Your task to perform on an android device: Search for alienware aurora on amazon, select the first entry, and add it to the cart. Image 0: 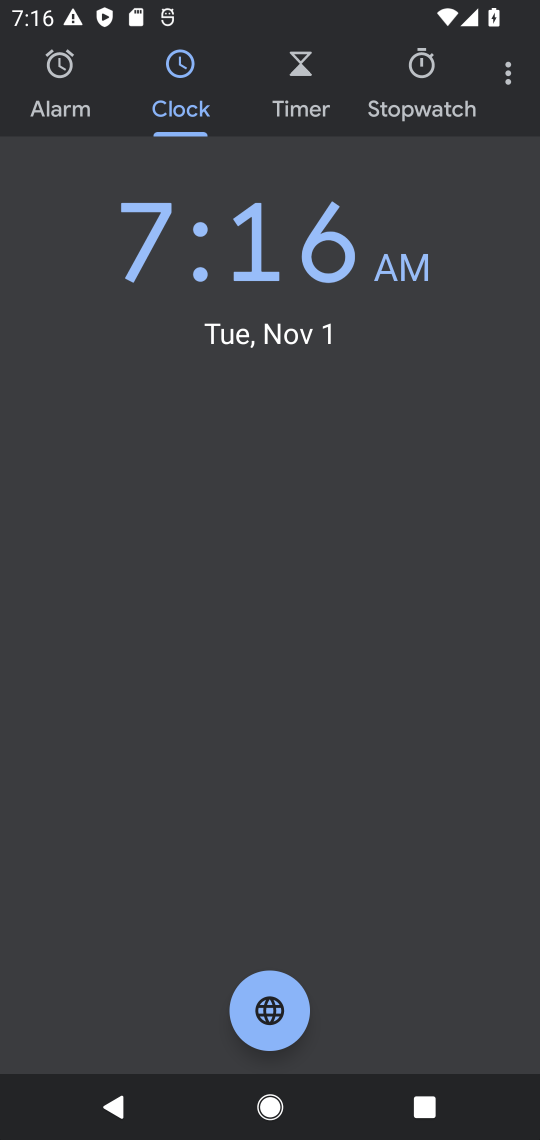
Step 0: press home button
Your task to perform on an android device: Search for alienware aurora on amazon, select the first entry, and add it to the cart. Image 1: 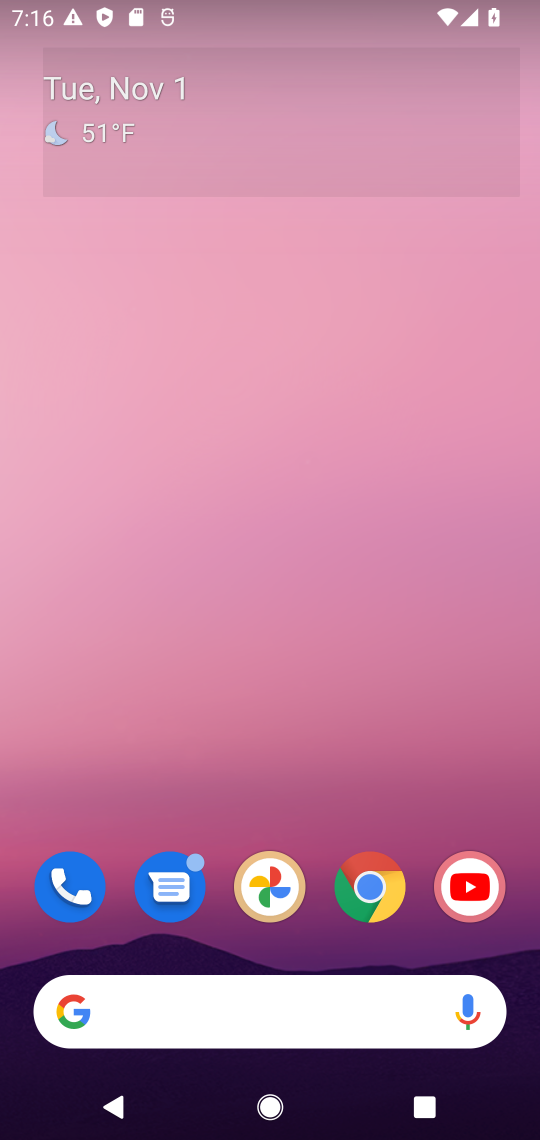
Step 1: click (258, 893)
Your task to perform on an android device: Search for alienware aurora on amazon, select the first entry, and add it to the cart. Image 2: 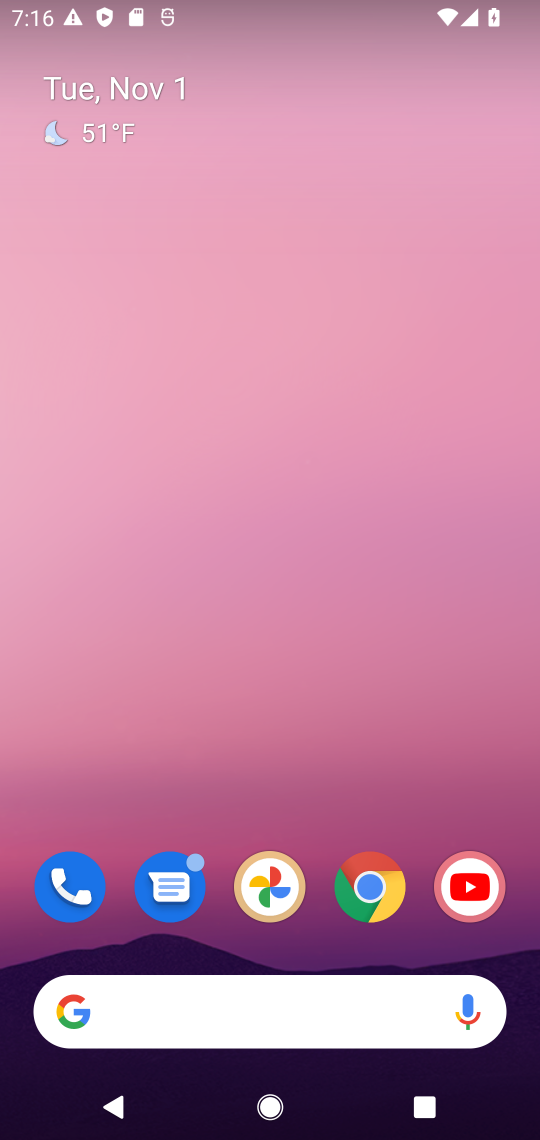
Step 2: drag from (226, 943) to (251, 551)
Your task to perform on an android device: Search for alienware aurora on amazon, select the first entry, and add it to the cart. Image 3: 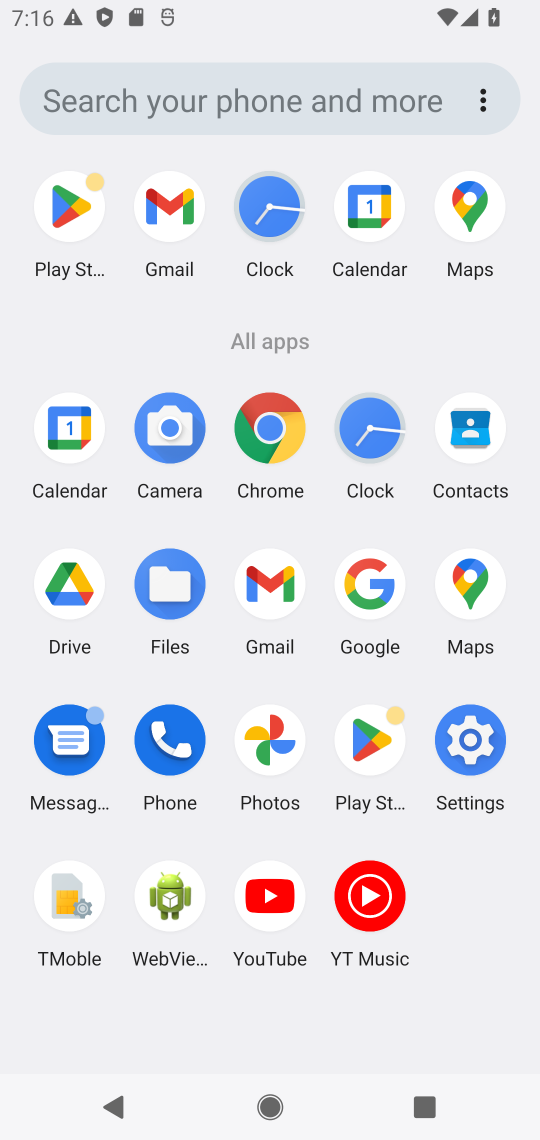
Step 3: click (359, 576)
Your task to perform on an android device: Search for alienware aurora on amazon, select the first entry, and add it to the cart. Image 4: 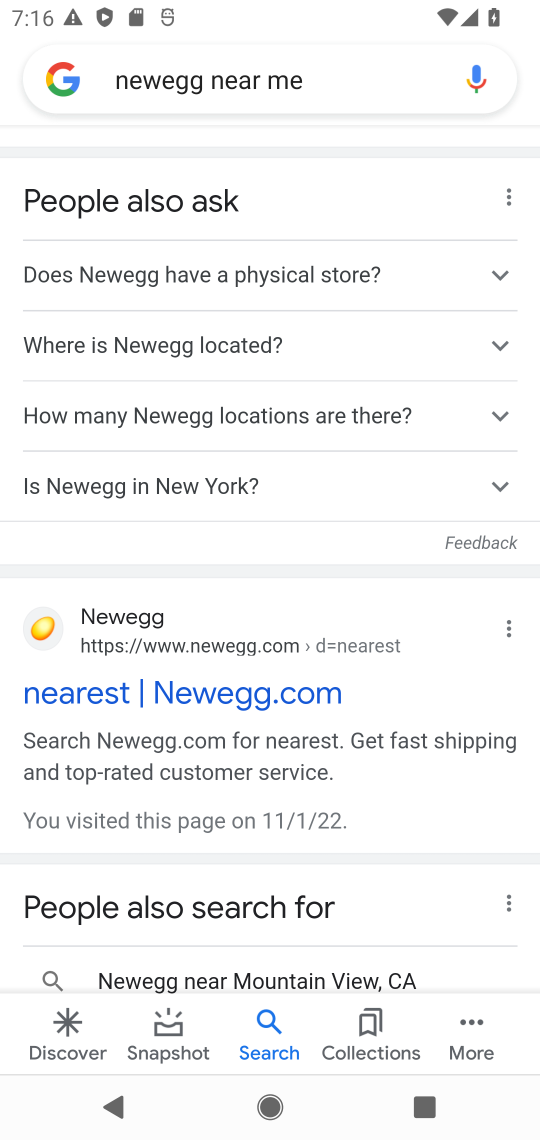
Step 4: click (317, 60)
Your task to perform on an android device: Search for alienware aurora on amazon, select the first entry, and add it to the cart. Image 5: 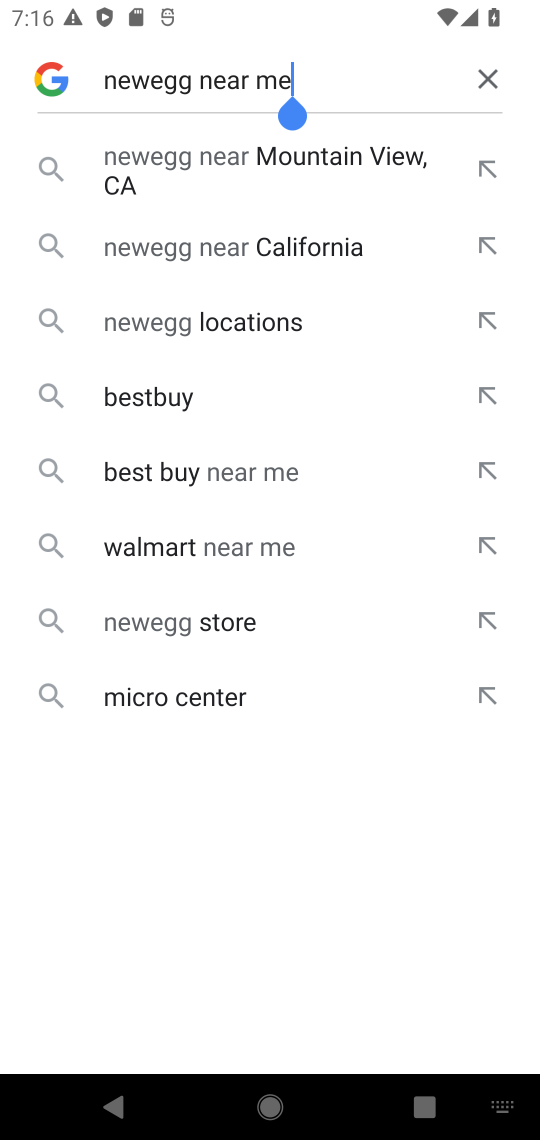
Step 5: click (496, 63)
Your task to perform on an android device: Search for alienware aurora on amazon, select the first entry, and add it to the cart. Image 6: 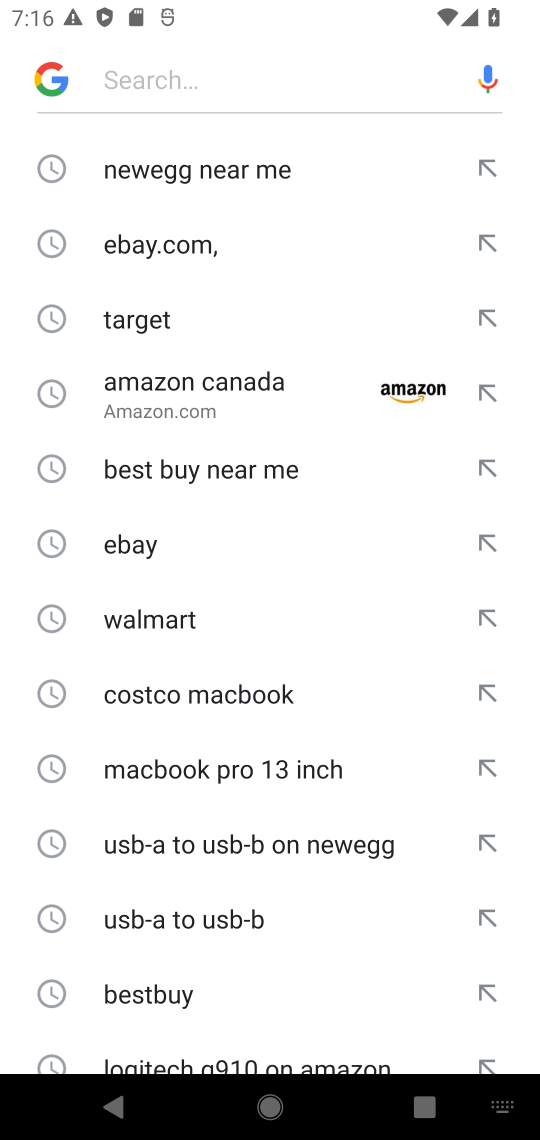
Step 6: click (278, 58)
Your task to perform on an android device: Search for alienware aurora on amazon, select the first entry, and add it to the cart. Image 7: 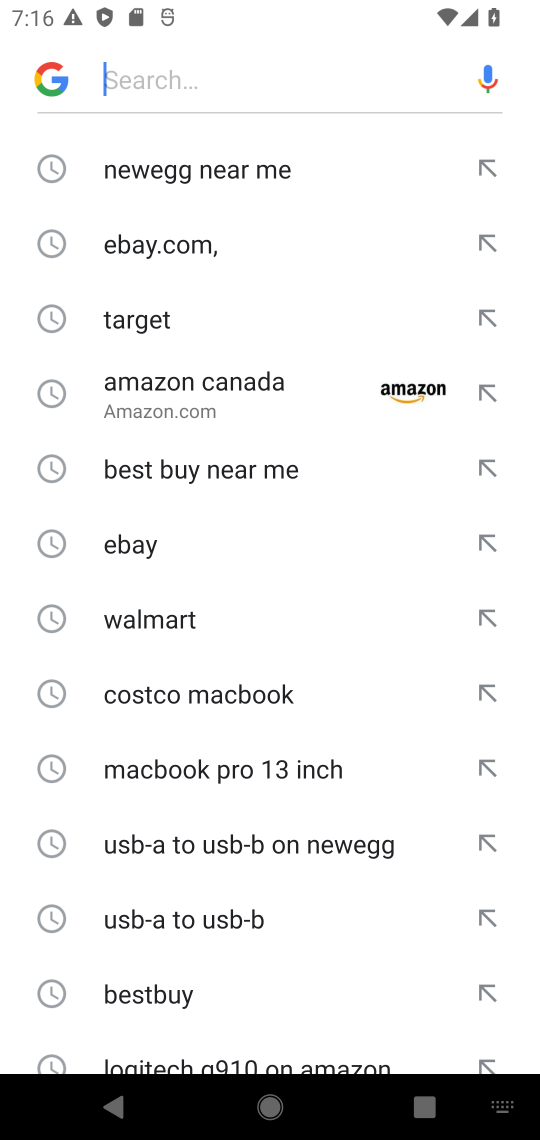
Step 7: type "amazon "
Your task to perform on an android device: Search for alienware aurora on amazon, select the first entry, and add it to the cart. Image 8: 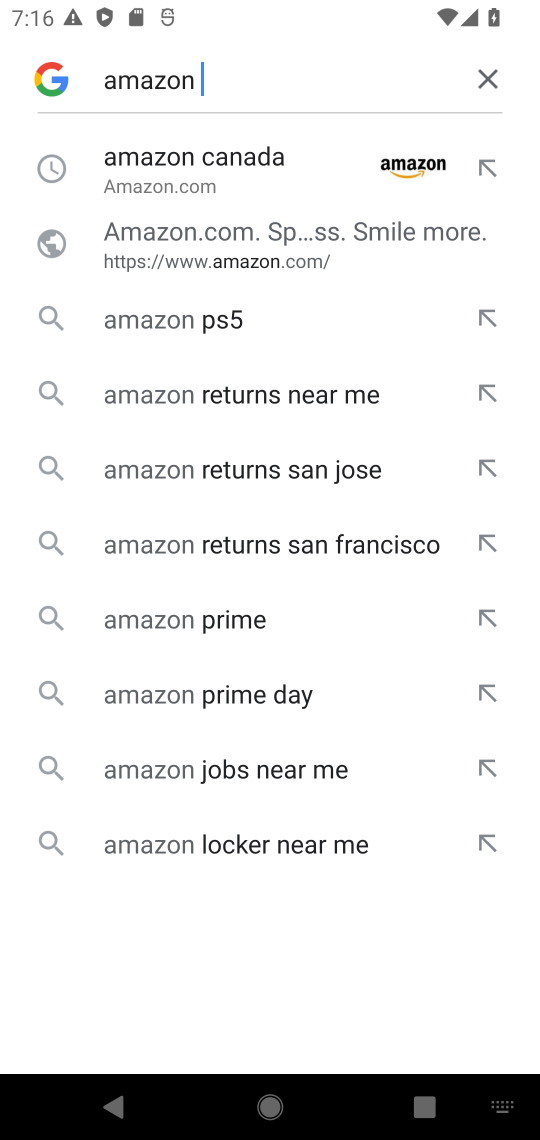
Step 8: click (225, 155)
Your task to perform on an android device: Search for alienware aurora on amazon, select the first entry, and add it to the cart. Image 9: 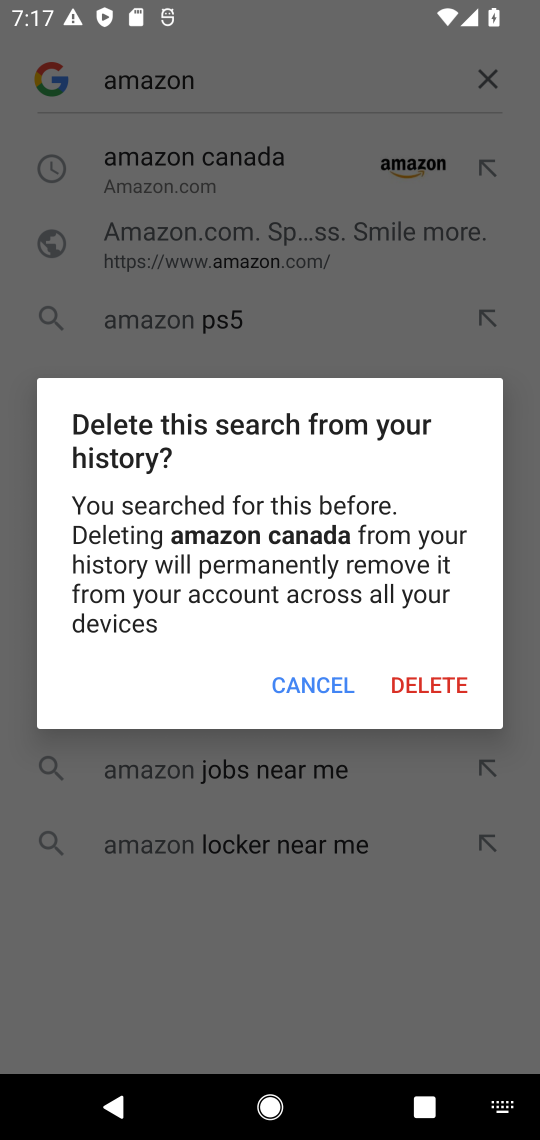
Step 9: click (295, 701)
Your task to perform on an android device: Search for alienware aurora on amazon, select the first entry, and add it to the cart. Image 10: 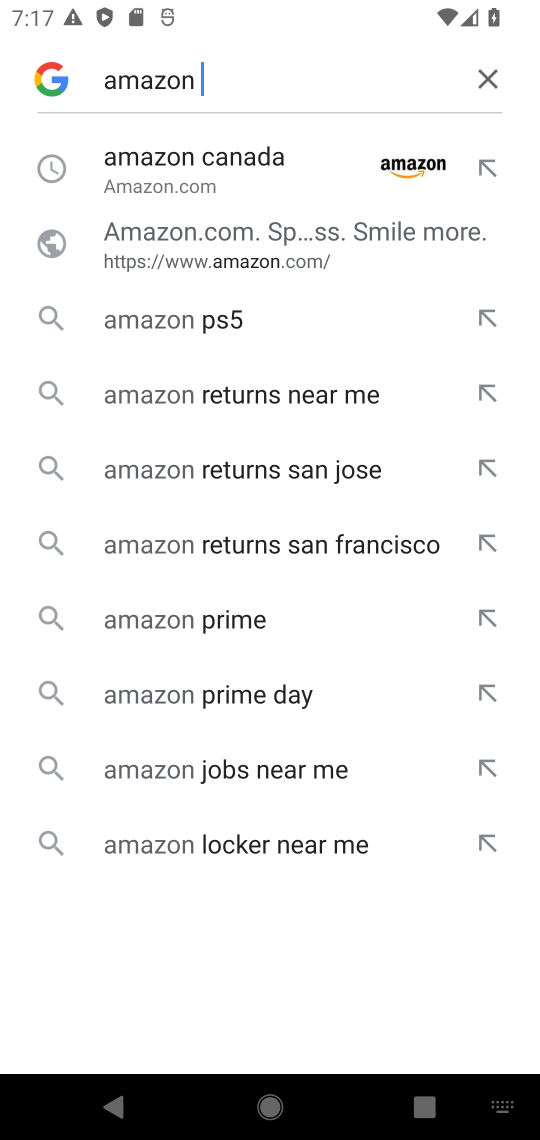
Step 10: click (421, 145)
Your task to perform on an android device: Search for alienware aurora on amazon, select the first entry, and add it to the cart. Image 11: 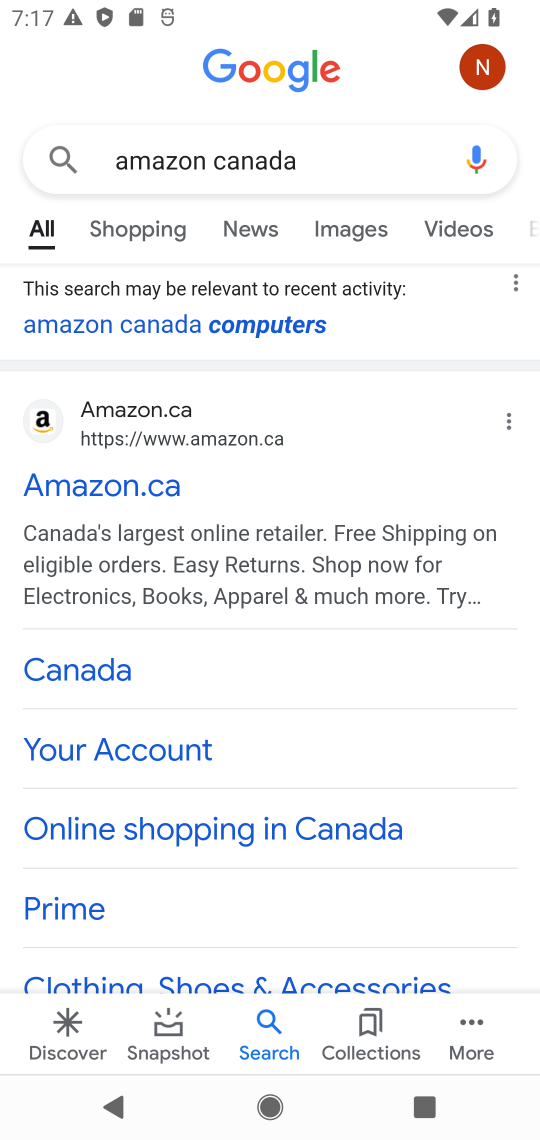
Step 11: click (118, 402)
Your task to perform on an android device: Search for alienware aurora on amazon, select the first entry, and add it to the cart. Image 12: 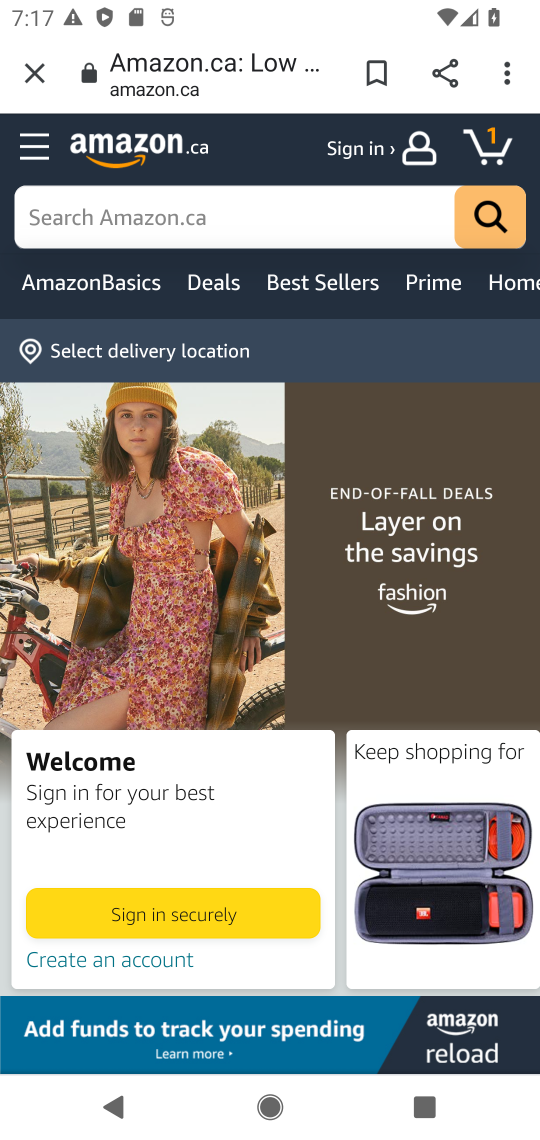
Step 12: click (185, 201)
Your task to perform on an android device: Search for alienware aurora on amazon, select the first entry, and add it to the cart. Image 13: 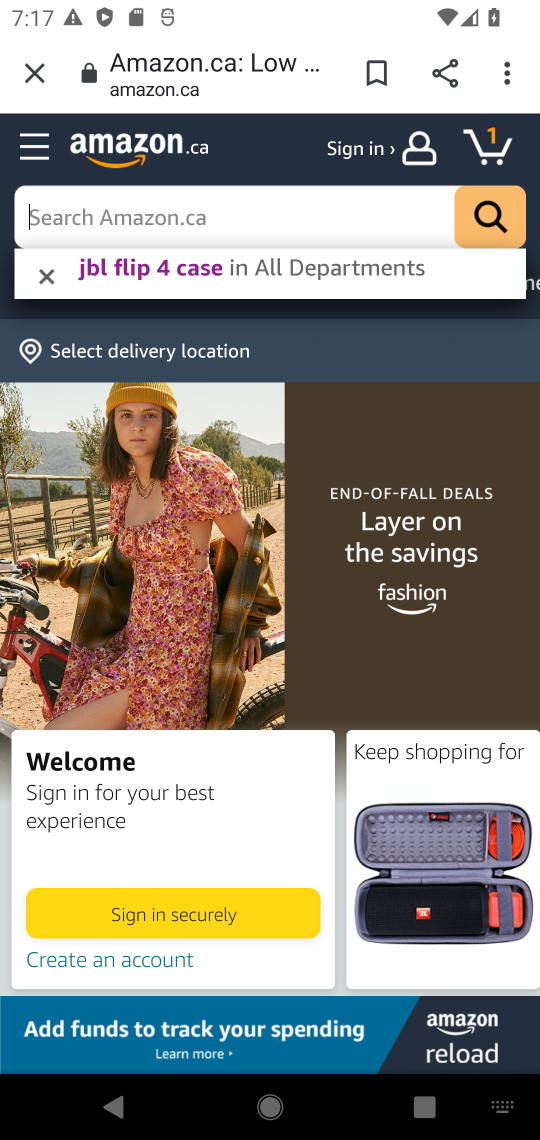
Step 13: type ""
Your task to perform on an android device: Search for alienware aurora on amazon, select the first entry, and add it to the cart. Image 14: 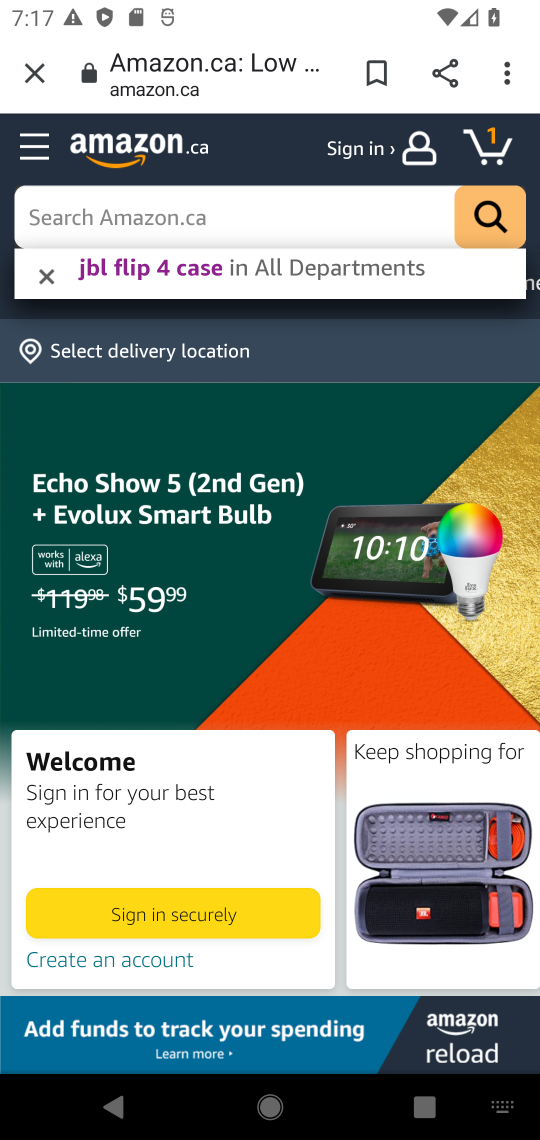
Step 14: click (202, 211)
Your task to perform on an android device: Search for alienware aurora on amazon, select the first entry, and add it to the cart. Image 15: 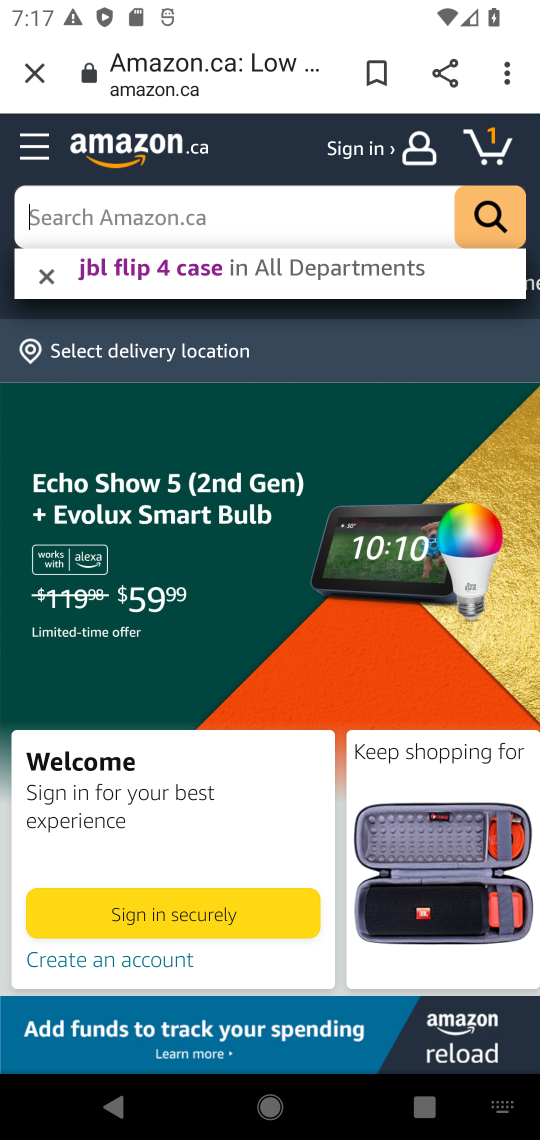
Step 15: type "alienware "
Your task to perform on an android device: Search for alienware aurora on amazon, select the first entry, and add it to the cart. Image 16: 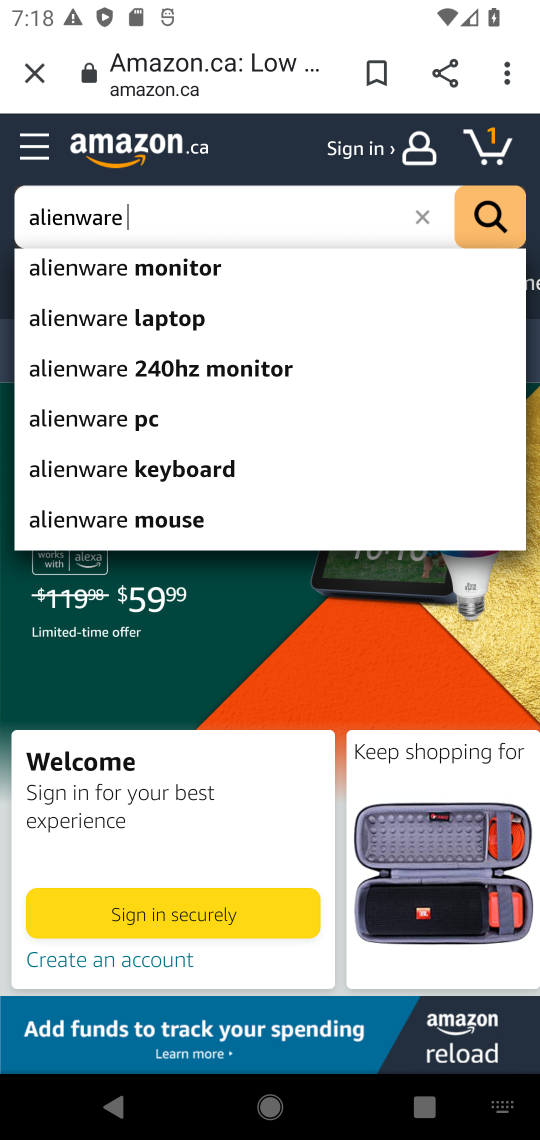
Step 16: click (107, 276)
Your task to perform on an android device: Search for alienware aurora on amazon, select the first entry, and add it to the cart. Image 17: 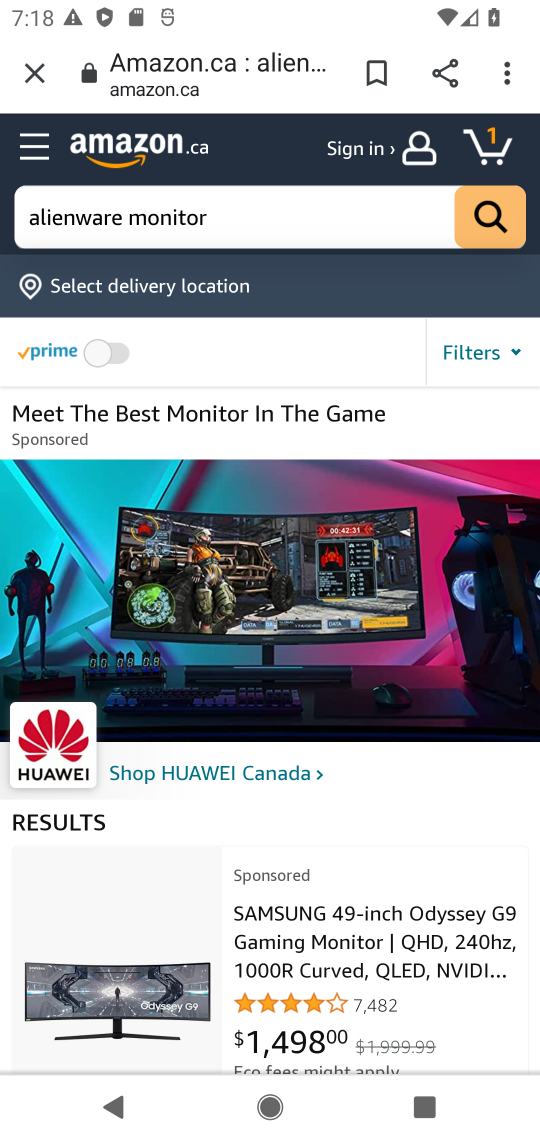
Step 17: click (482, 204)
Your task to perform on an android device: Search for alienware aurora on amazon, select the first entry, and add it to the cart. Image 18: 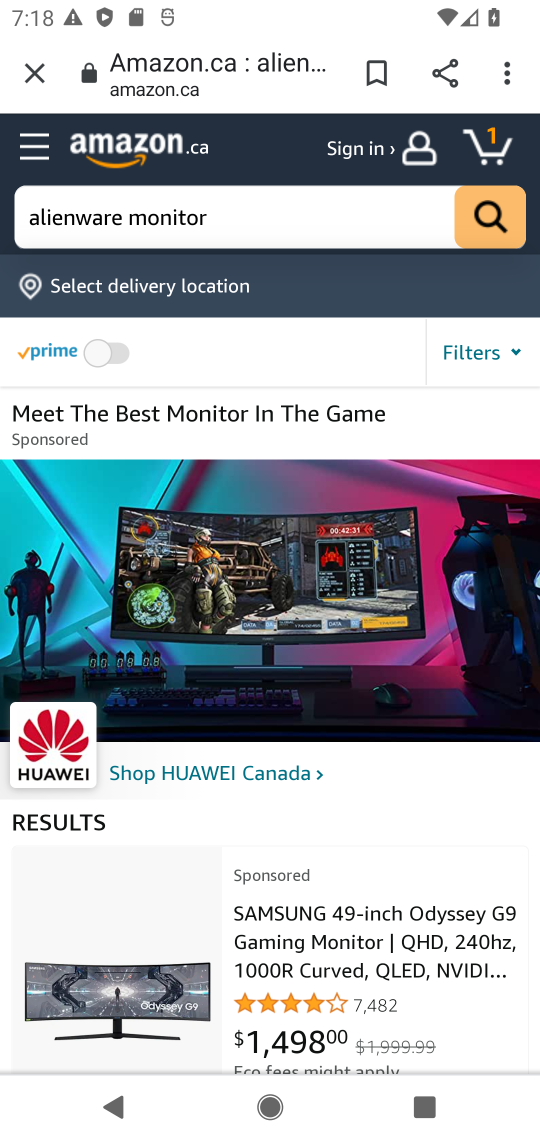
Step 18: click (373, 214)
Your task to perform on an android device: Search for alienware aurora on amazon, select the first entry, and add it to the cart. Image 19: 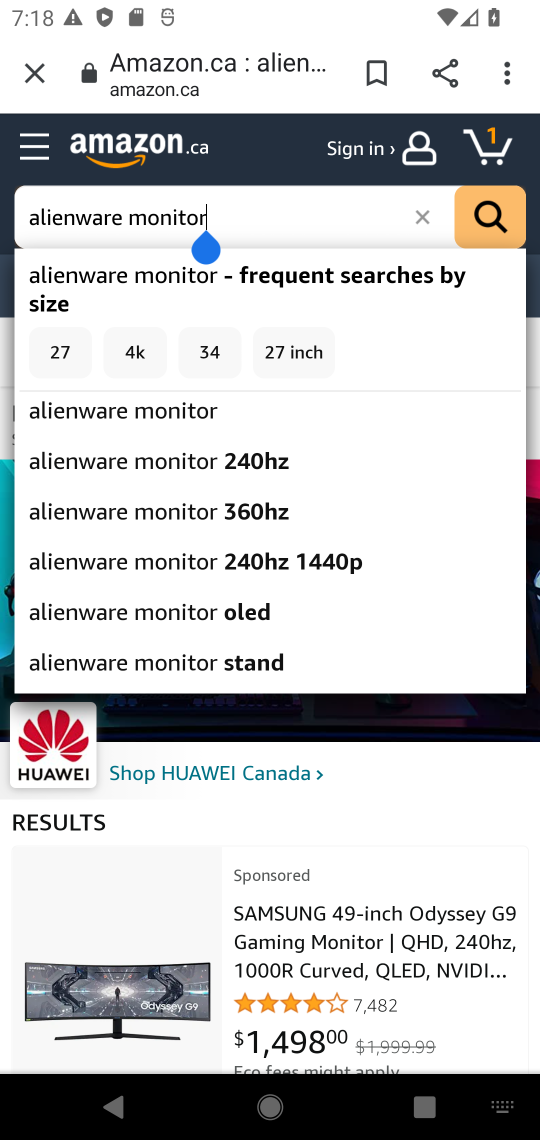
Step 19: click (418, 220)
Your task to perform on an android device: Search for alienware aurora on amazon, select the first entry, and add it to the cart. Image 20: 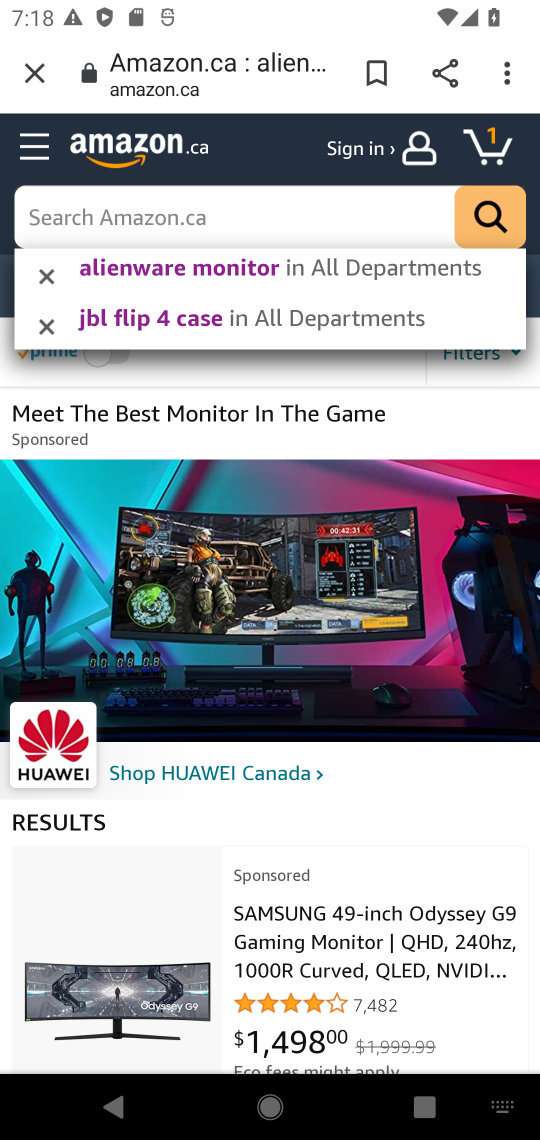
Step 20: click (228, 213)
Your task to perform on an android device: Search for alienware aurora on amazon, select the first entry, and add it to the cart. Image 21: 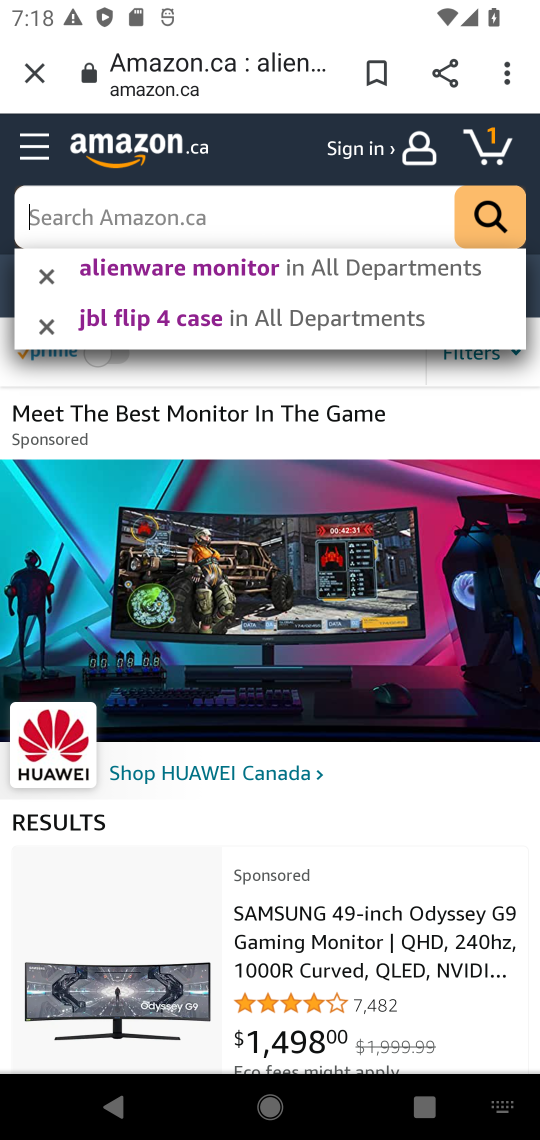
Step 21: type "alienware aurora  "
Your task to perform on an android device: Search for alienware aurora on amazon, select the first entry, and add it to the cart. Image 22: 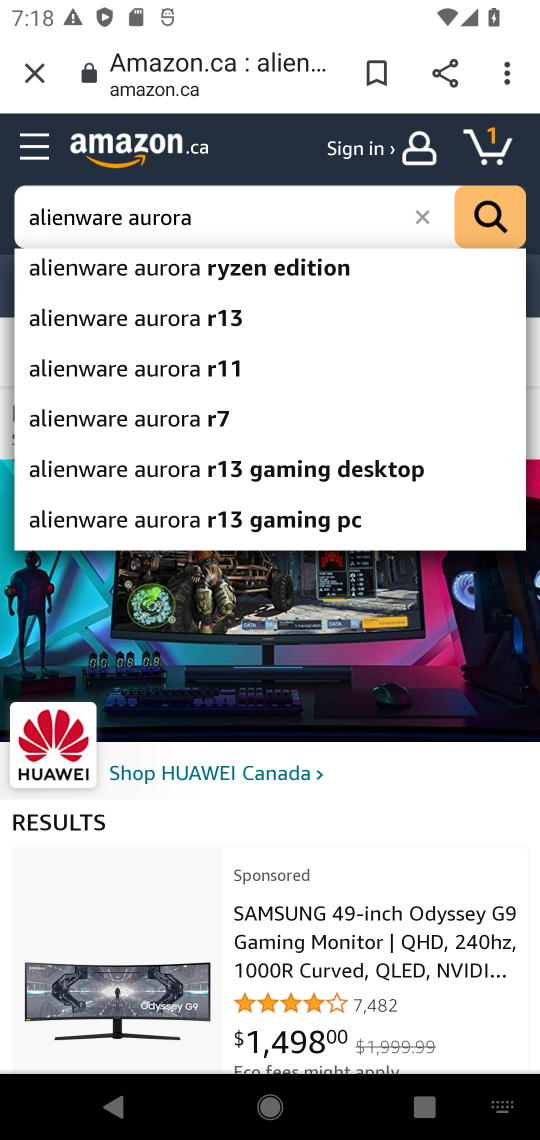
Step 22: click (153, 315)
Your task to perform on an android device: Search for alienware aurora on amazon, select the first entry, and add it to the cart. Image 23: 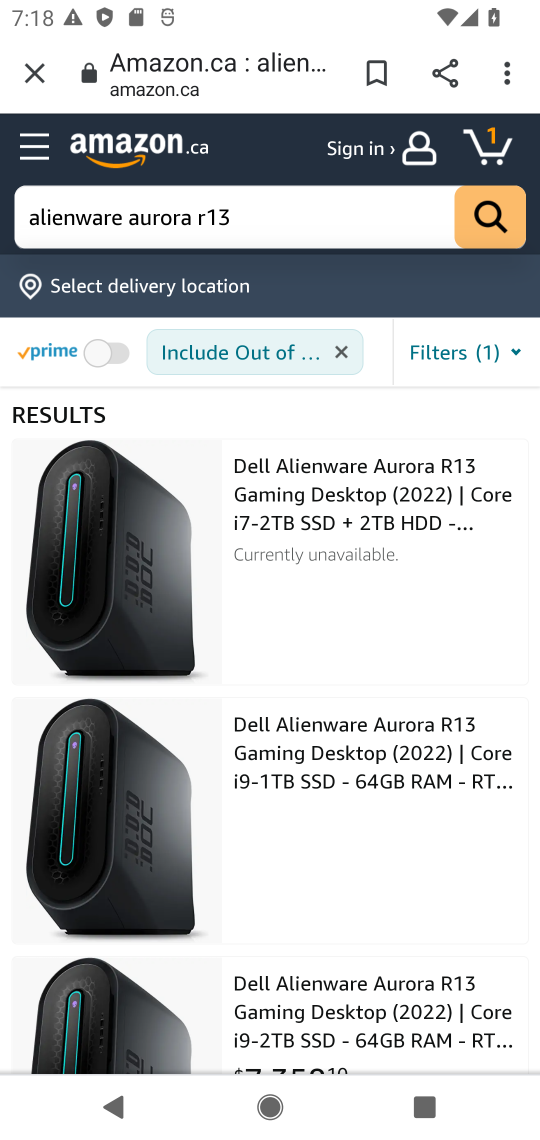
Step 23: click (298, 504)
Your task to perform on an android device: Search for alienware aurora on amazon, select the first entry, and add it to the cart. Image 24: 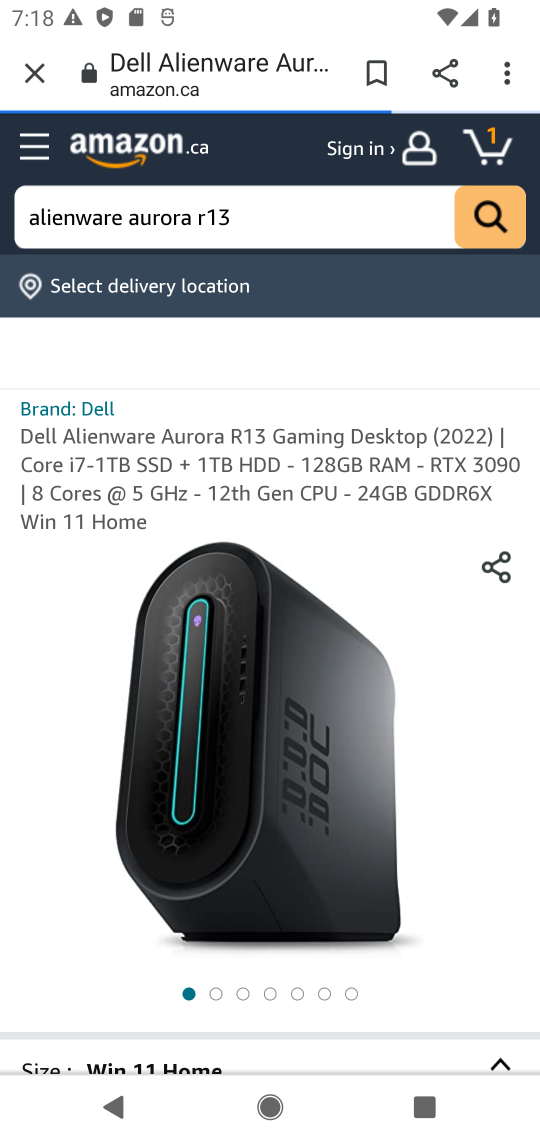
Step 24: drag from (233, 920) to (242, 403)
Your task to perform on an android device: Search for alienware aurora on amazon, select the first entry, and add it to the cart. Image 25: 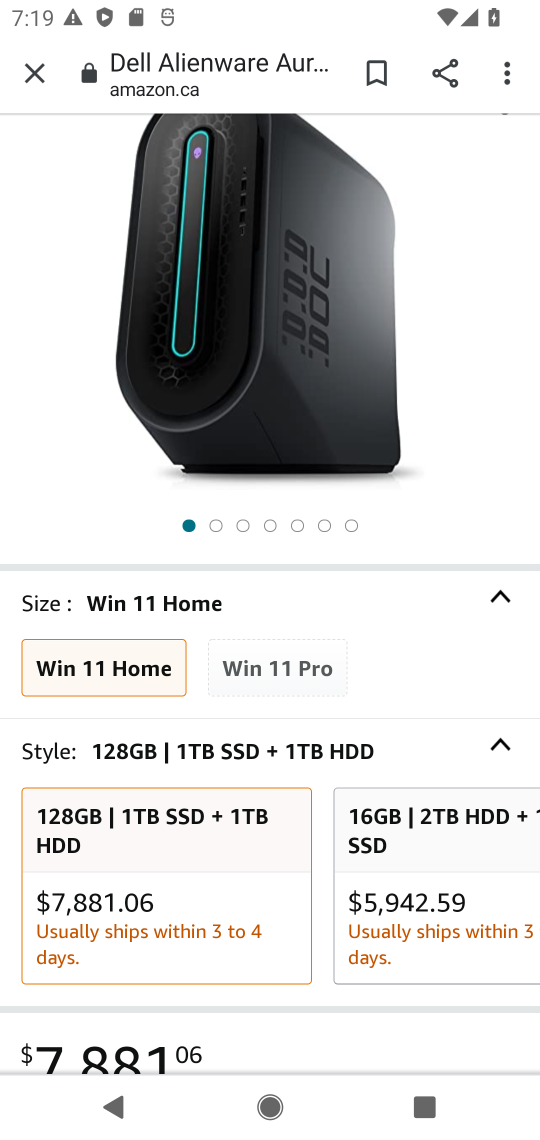
Step 25: drag from (260, 924) to (272, 252)
Your task to perform on an android device: Search for alienware aurora on amazon, select the first entry, and add it to the cart. Image 26: 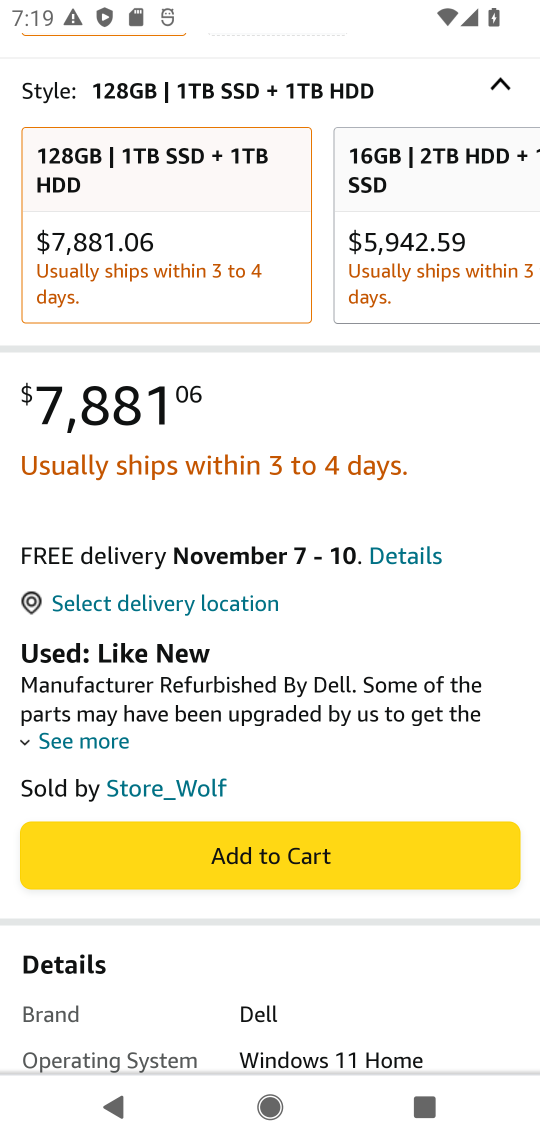
Step 26: click (288, 857)
Your task to perform on an android device: Search for alienware aurora on amazon, select the first entry, and add it to the cart. Image 27: 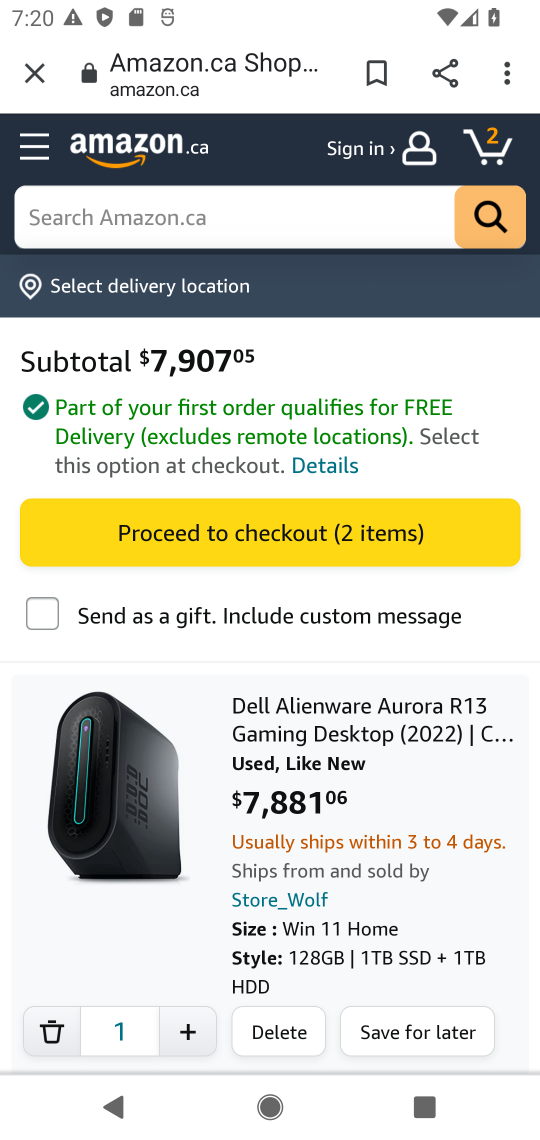
Step 27: task complete